Your task to perform on an android device: set default search engine in the chrome app Image 0: 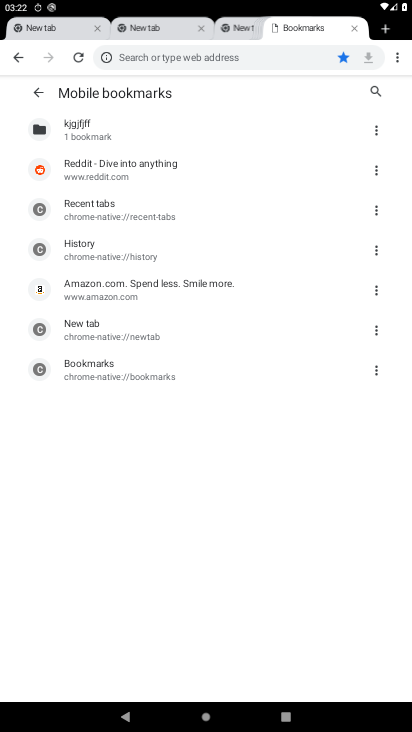
Step 0: press home button
Your task to perform on an android device: set default search engine in the chrome app Image 1: 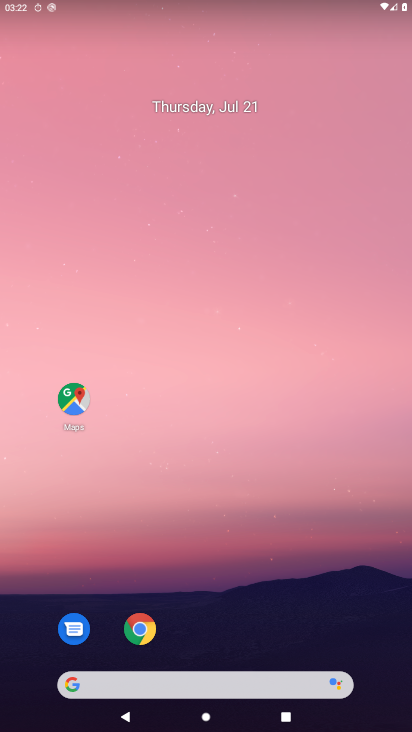
Step 1: click (148, 634)
Your task to perform on an android device: set default search engine in the chrome app Image 2: 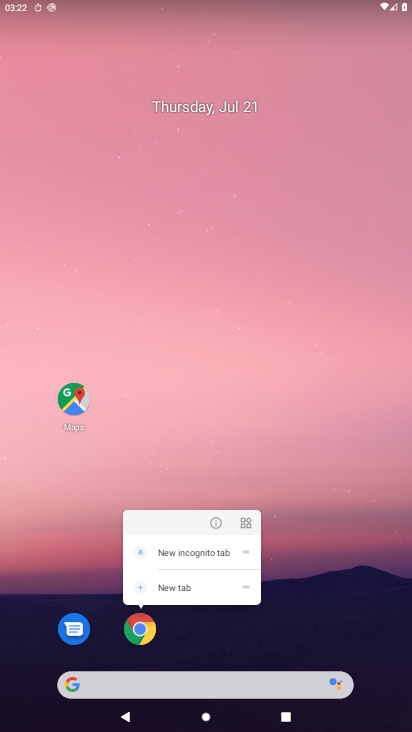
Step 2: click (133, 616)
Your task to perform on an android device: set default search engine in the chrome app Image 3: 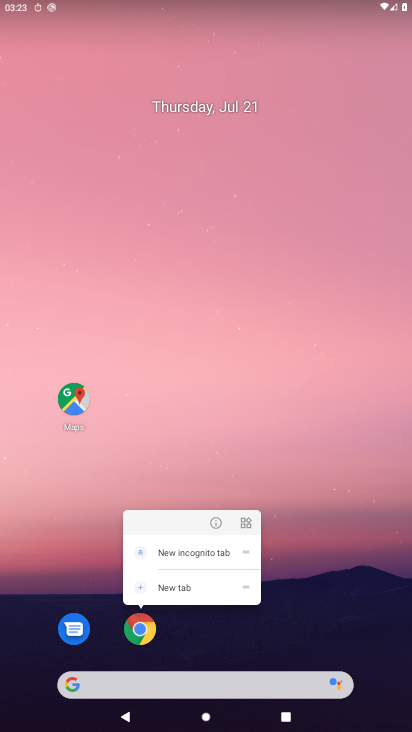
Step 3: click (135, 620)
Your task to perform on an android device: set default search engine in the chrome app Image 4: 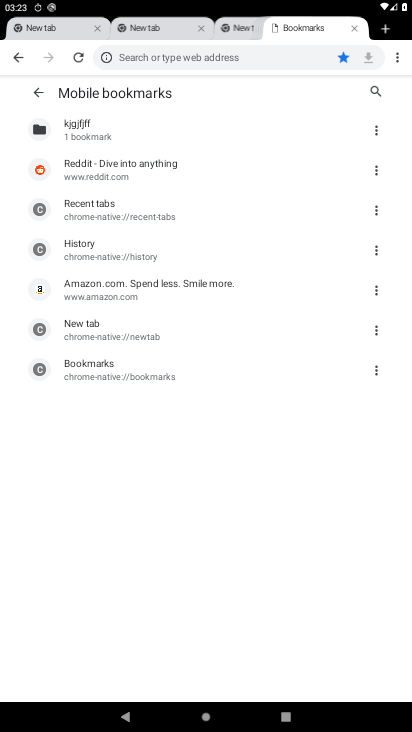
Step 4: click (401, 53)
Your task to perform on an android device: set default search engine in the chrome app Image 5: 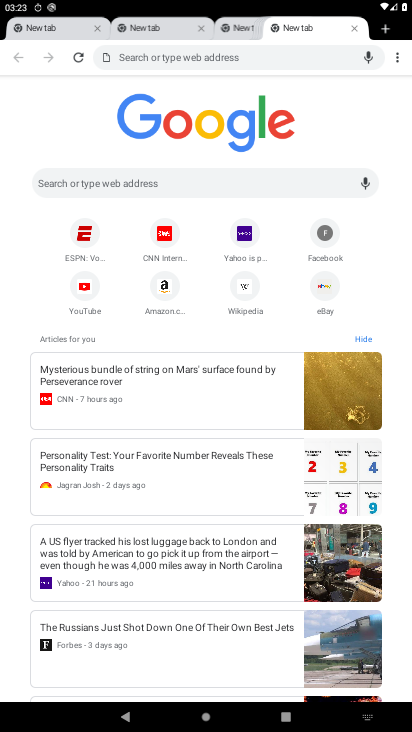
Step 5: click (394, 50)
Your task to perform on an android device: set default search engine in the chrome app Image 6: 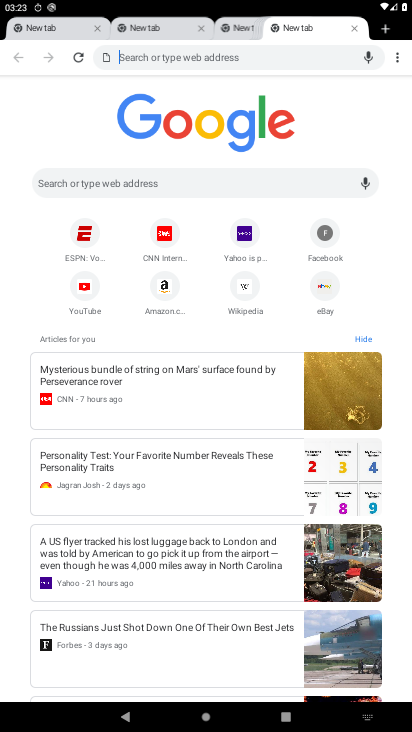
Step 6: task complete